Your task to perform on an android device: turn off location Image 0: 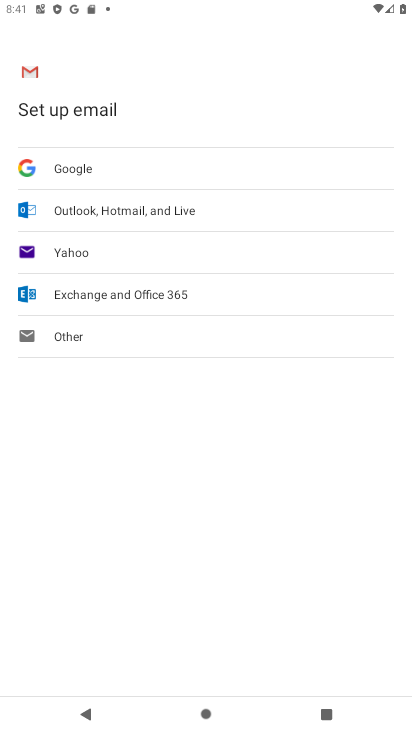
Step 0: press home button
Your task to perform on an android device: turn off location Image 1: 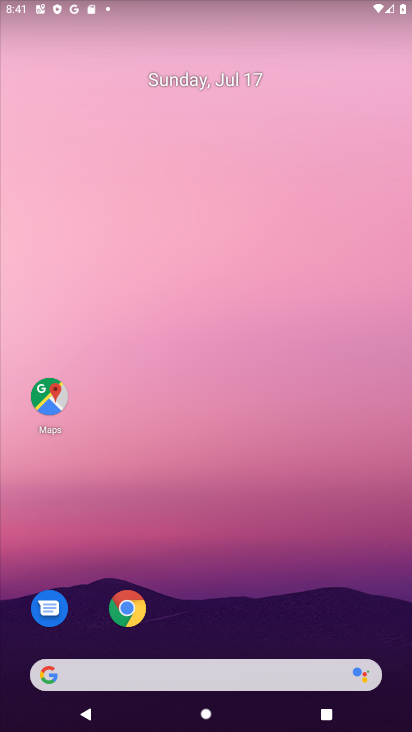
Step 1: drag from (202, 660) to (228, 369)
Your task to perform on an android device: turn off location Image 2: 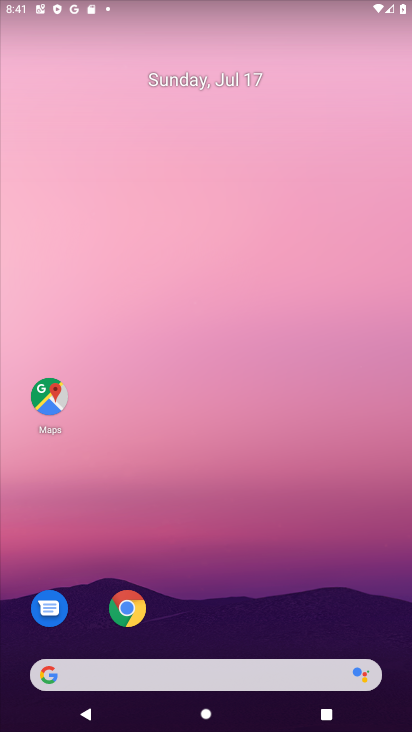
Step 2: drag from (179, 662) to (242, 323)
Your task to perform on an android device: turn off location Image 3: 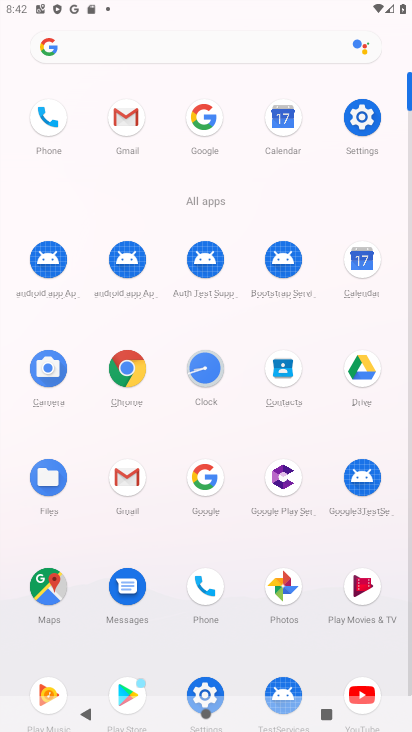
Step 3: click (355, 133)
Your task to perform on an android device: turn off location Image 4: 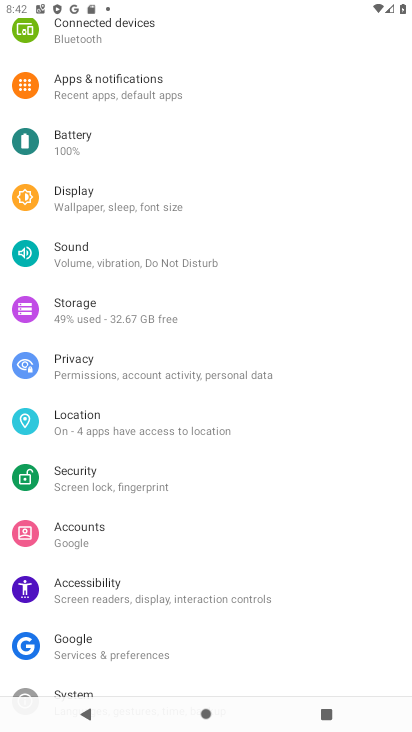
Step 4: click (71, 423)
Your task to perform on an android device: turn off location Image 5: 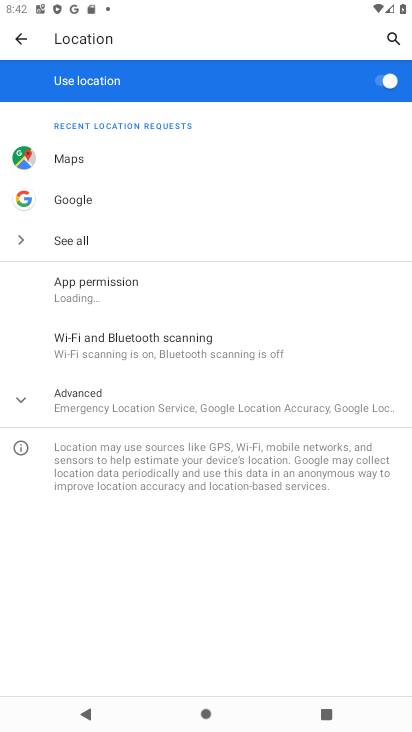
Step 5: click (379, 86)
Your task to perform on an android device: turn off location Image 6: 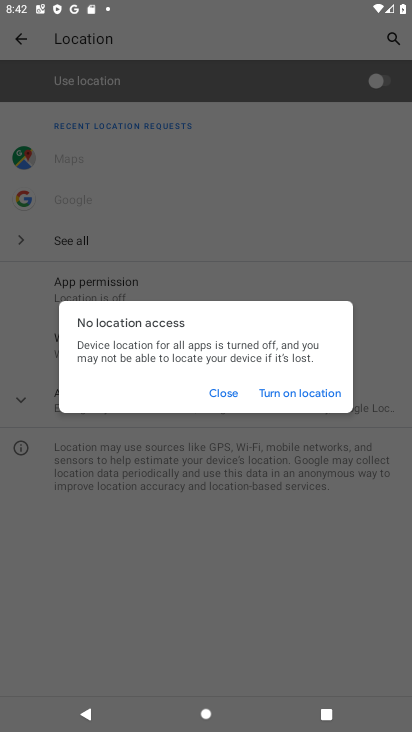
Step 6: click (211, 393)
Your task to perform on an android device: turn off location Image 7: 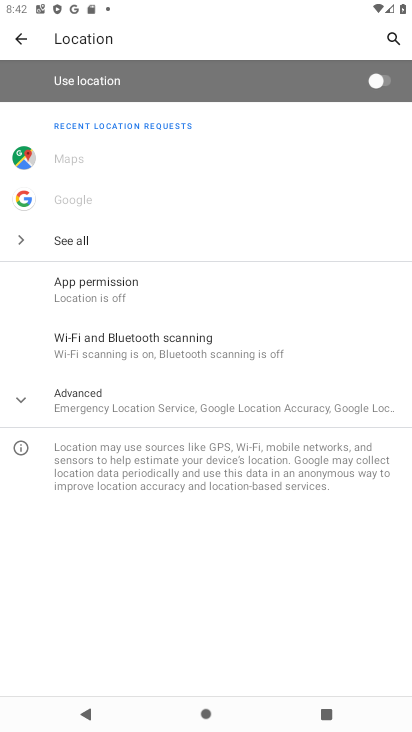
Step 7: task complete